Your task to perform on an android device: change notifications settings Image 0: 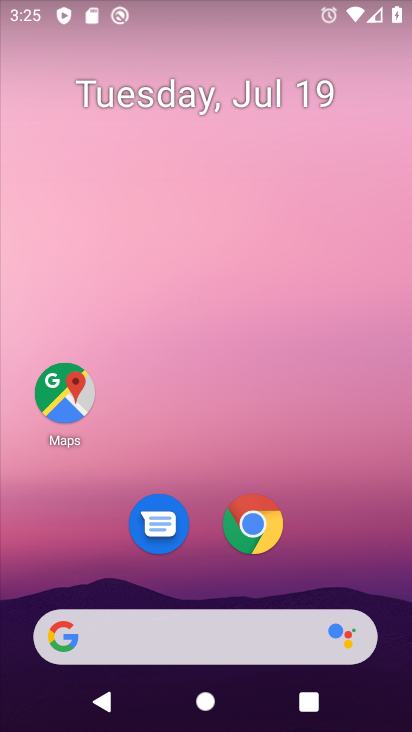
Step 0: drag from (333, 530) to (333, 35)
Your task to perform on an android device: change notifications settings Image 1: 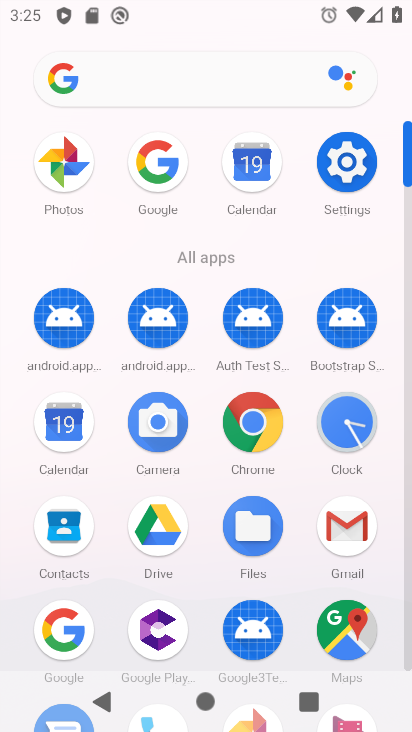
Step 1: click (336, 160)
Your task to perform on an android device: change notifications settings Image 2: 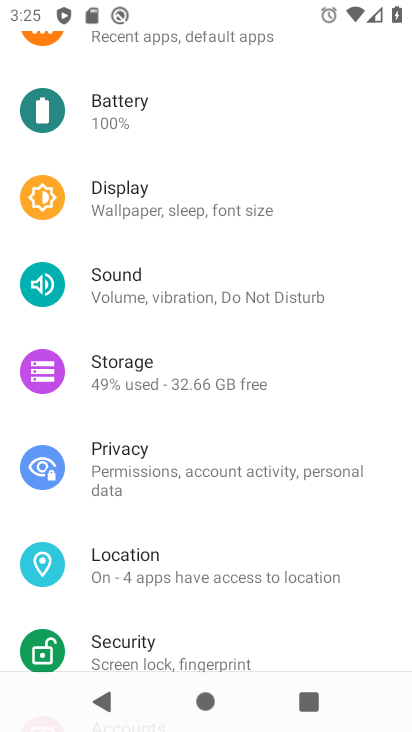
Step 2: drag from (224, 268) to (211, 584)
Your task to perform on an android device: change notifications settings Image 3: 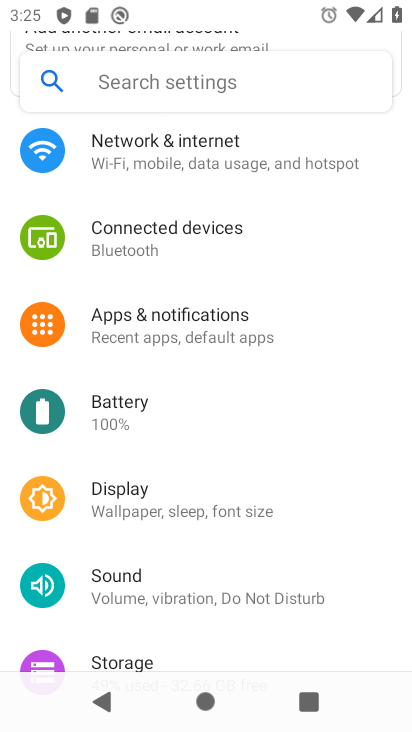
Step 3: click (243, 333)
Your task to perform on an android device: change notifications settings Image 4: 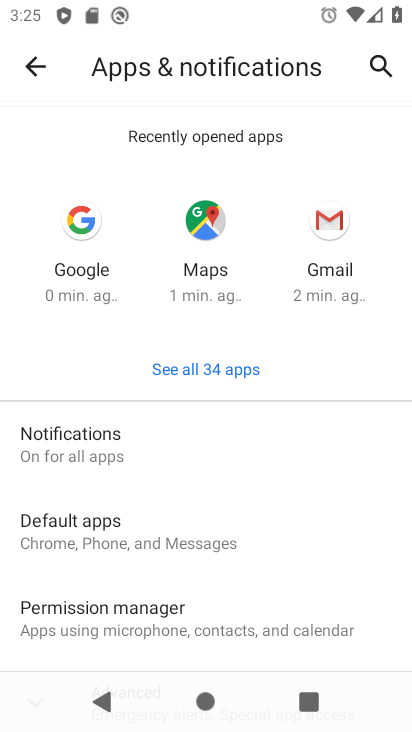
Step 4: click (100, 437)
Your task to perform on an android device: change notifications settings Image 5: 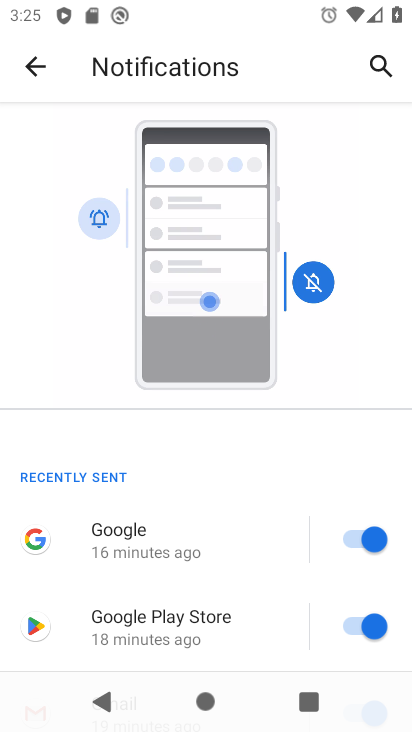
Step 5: drag from (218, 554) to (263, 150)
Your task to perform on an android device: change notifications settings Image 6: 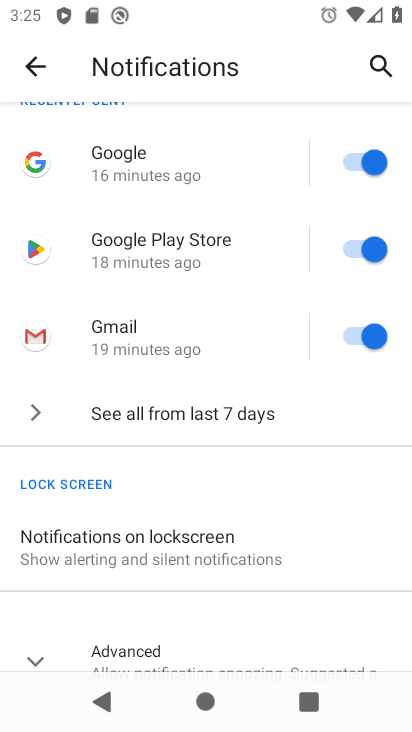
Step 6: click (243, 400)
Your task to perform on an android device: change notifications settings Image 7: 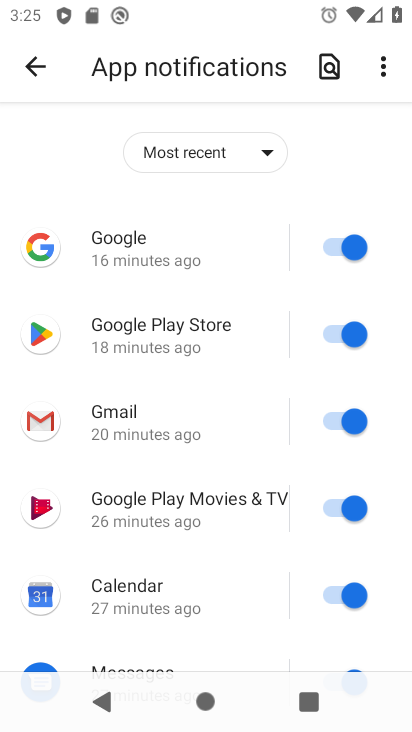
Step 7: click (351, 251)
Your task to perform on an android device: change notifications settings Image 8: 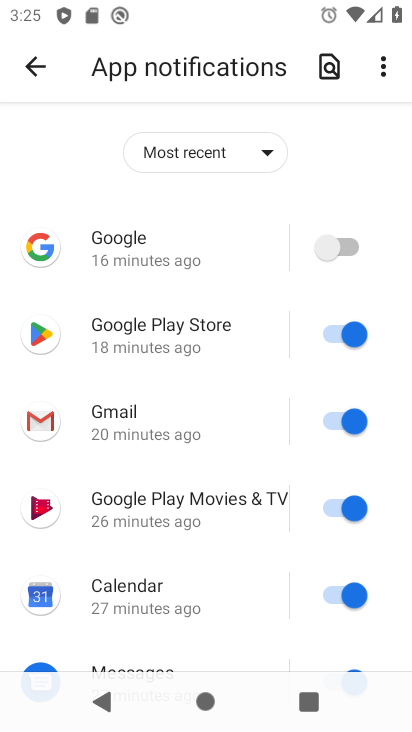
Step 8: click (340, 329)
Your task to perform on an android device: change notifications settings Image 9: 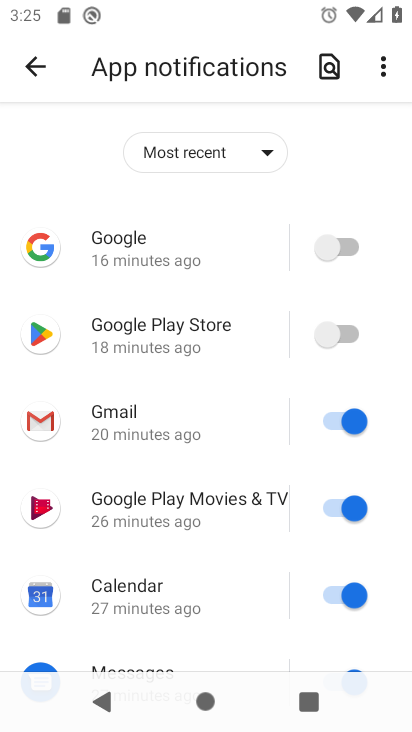
Step 9: click (338, 419)
Your task to perform on an android device: change notifications settings Image 10: 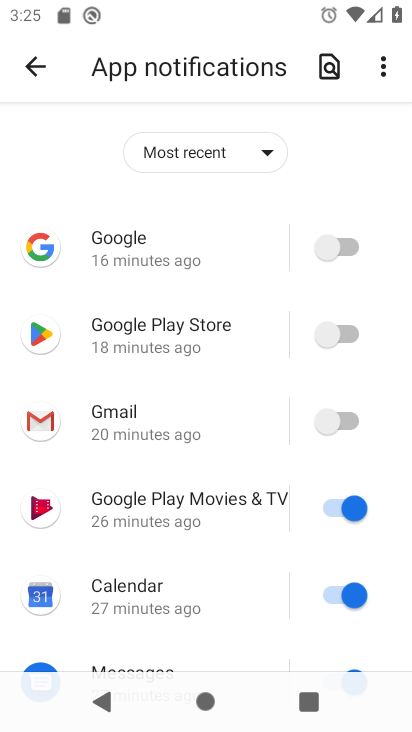
Step 10: click (343, 497)
Your task to perform on an android device: change notifications settings Image 11: 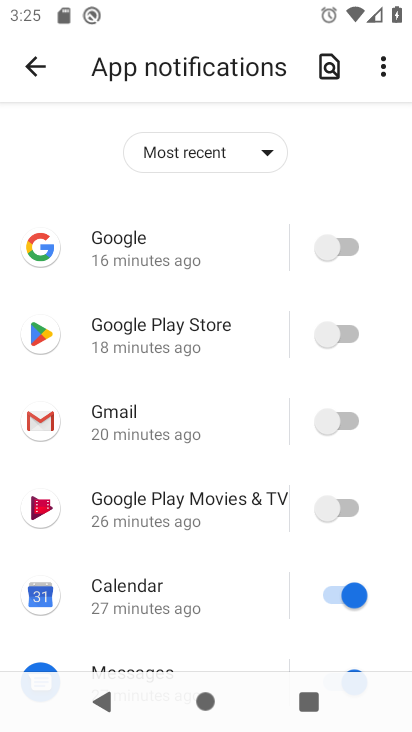
Step 11: click (343, 586)
Your task to perform on an android device: change notifications settings Image 12: 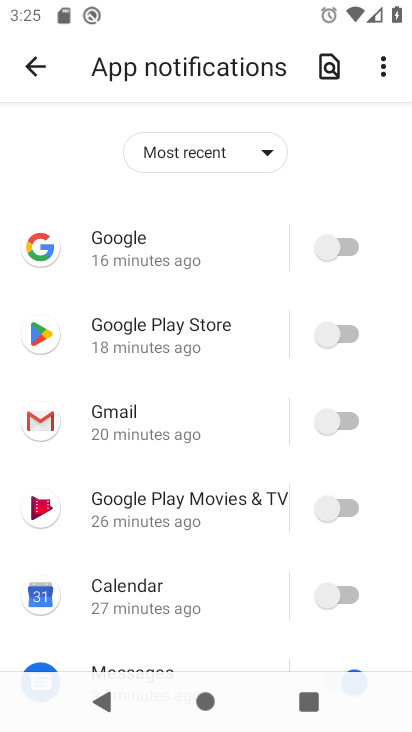
Step 12: drag from (224, 564) to (247, 112)
Your task to perform on an android device: change notifications settings Image 13: 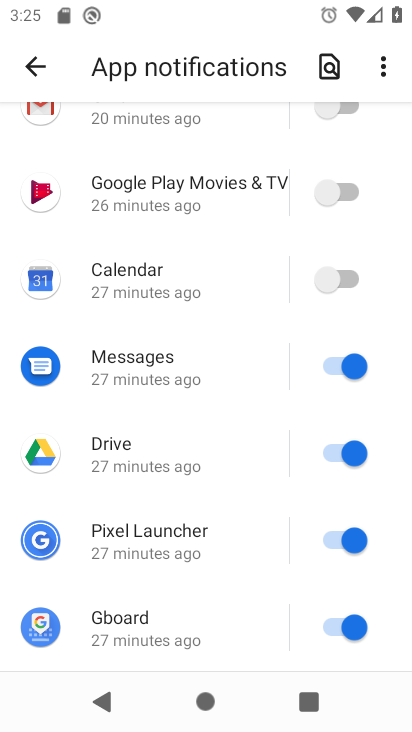
Step 13: click (336, 355)
Your task to perform on an android device: change notifications settings Image 14: 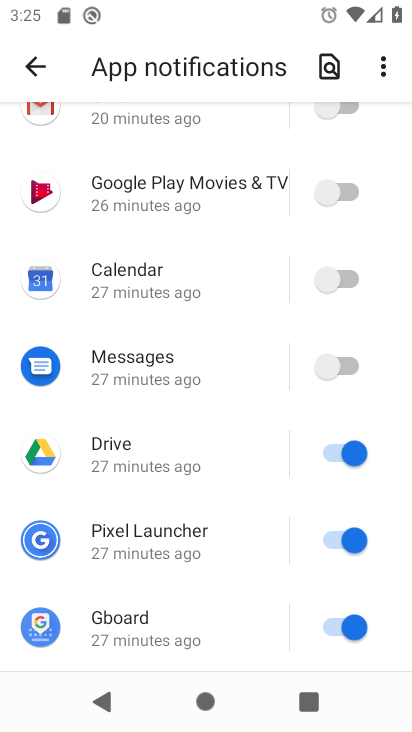
Step 14: click (339, 455)
Your task to perform on an android device: change notifications settings Image 15: 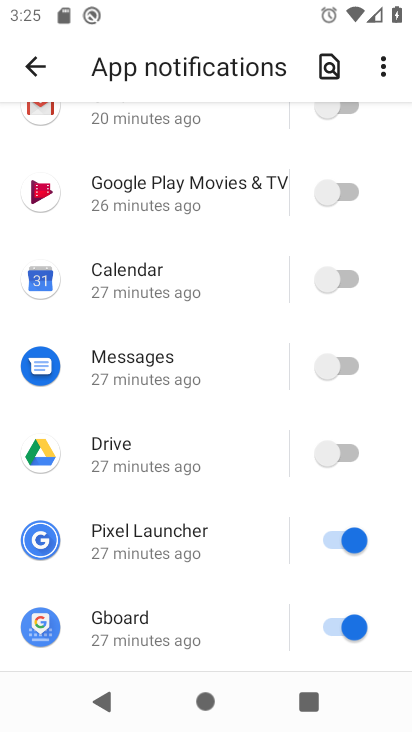
Step 15: click (342, 519)
Your task to perform on an android device: change notifications settings Image 16: 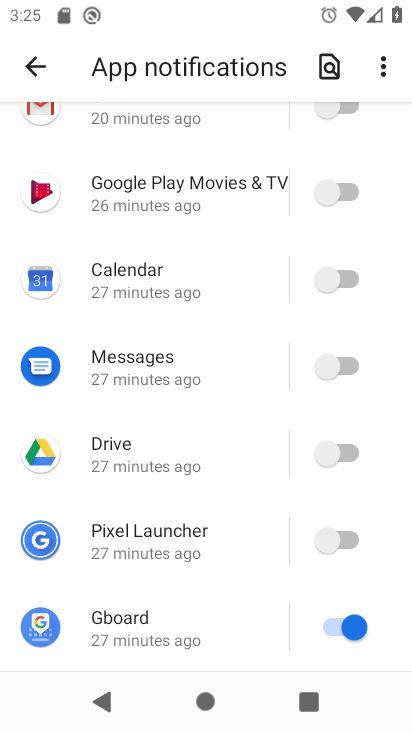
Step 16: click (348, 622)
Your task to perform on an android device: change notifications settings Image 17: 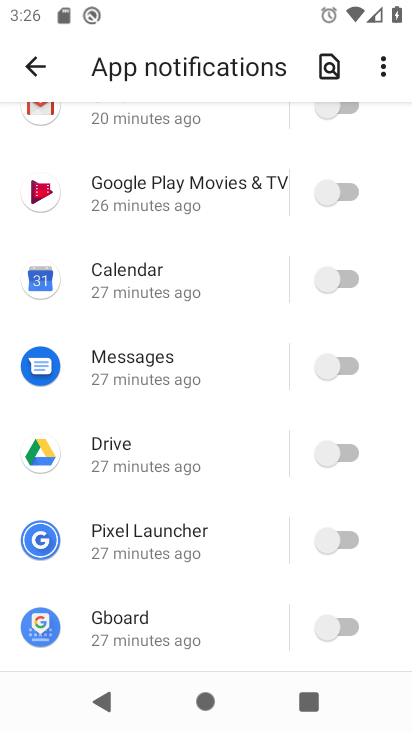
Step 17: task complete